Your task to perform on an android device: Open Google Chrome and click the shortcut for Amazon.com Image 0: 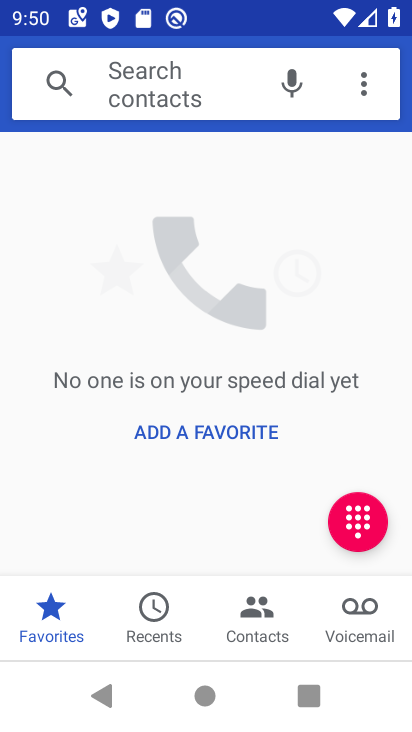
Step 0: press home button
Your task to perform on an android device: Open Google Chrome and click the shortcut for Amazon.com Image 1: 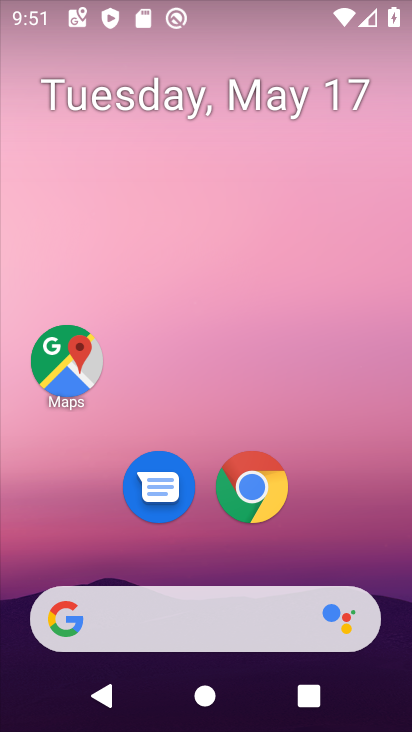
Step 1: drag from (270, 631) to (268, 214)
Your task to perform on an android device: Open Google Chrome and click the shortcut for Amazon.com Image 2: 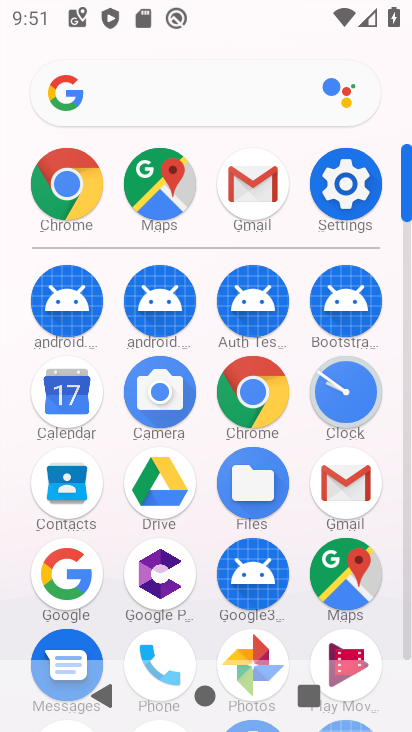
Step 2: click (77, 192)
Your task to perform on an android device: Open Google Chrome and click the shortcut for Amazon.com Image 3: 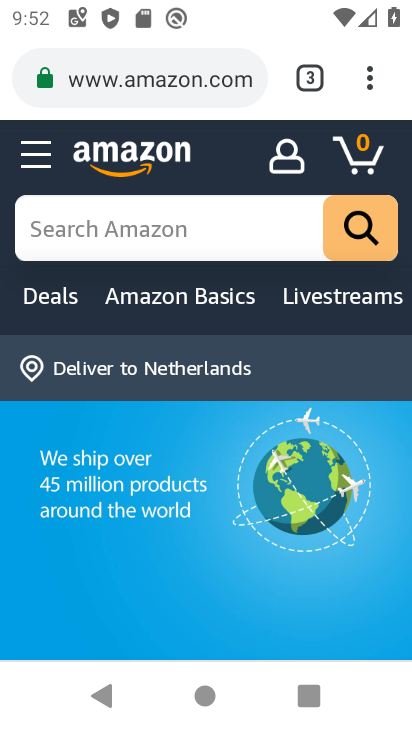
Step 3: click (361, 99)
Your task to perform on an android device: Open Google Chrome and click the shortcut for Amazon.com Image 4: 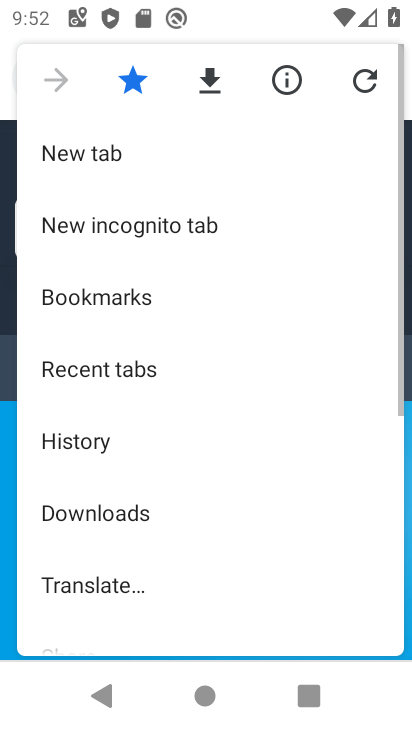
Step 4: drag from (147, 548) to (210, 257)
Your task to perform on an android device: Open Google Chrome and click the shortcut for Amazon.com Image 5: 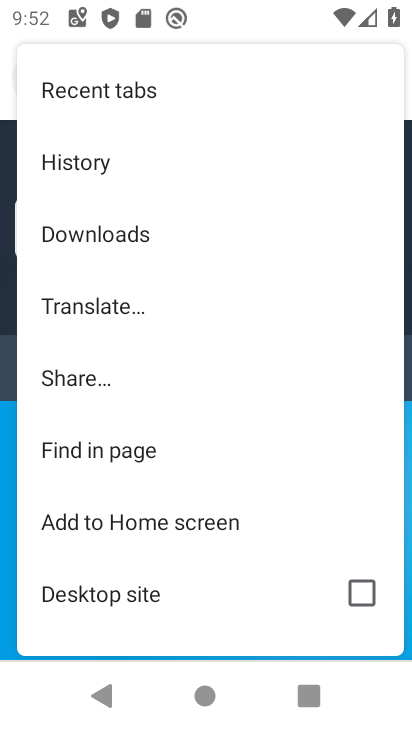
Step 5: click (131, 529)
Your task to perform on an android device: Open Google Chrome and click the shortcut for Amazon.com Image 6: 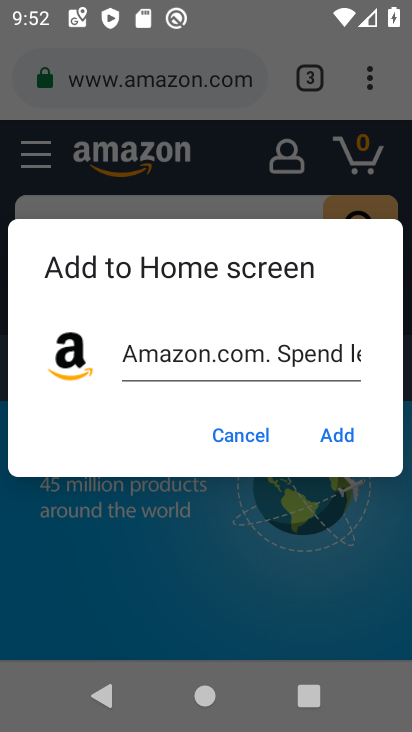
Step 6: click (324, 434)
Your task to perform on an android device: Open Google Chrome and click the shortcut for Amazon.com Image 7: 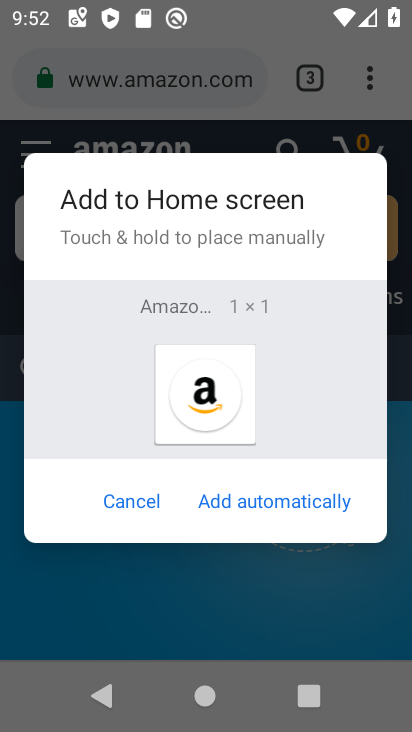
Step 7: click (308, 509)
Your task to perform on an android device: Open Google Chrome and click the shortcut for Amazon.com Image 8: 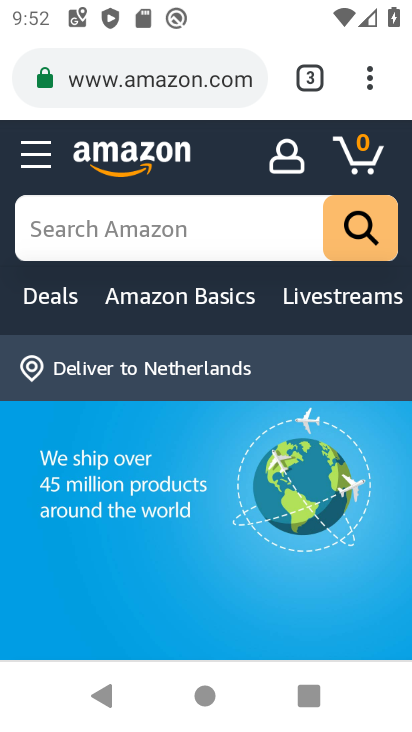
Step 8: task complete